Your task to perform on an android device: turn on notifications settings in the gmail app Image 0: 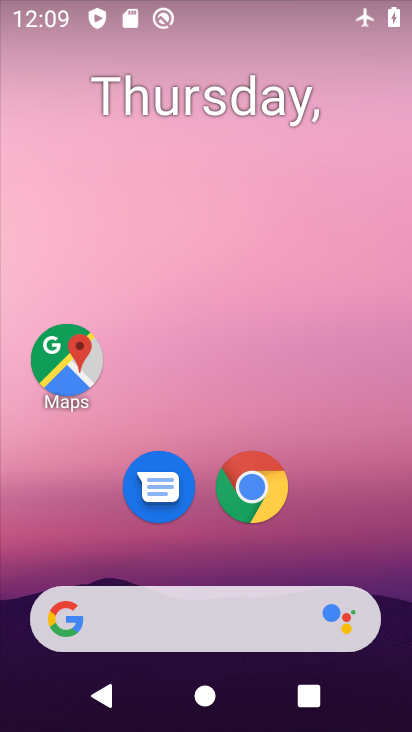
Step 0: drag from (318, 496) to (184, 179)
Your task to perform on an android device: turn on notifications settings in the gmail app Image 1: 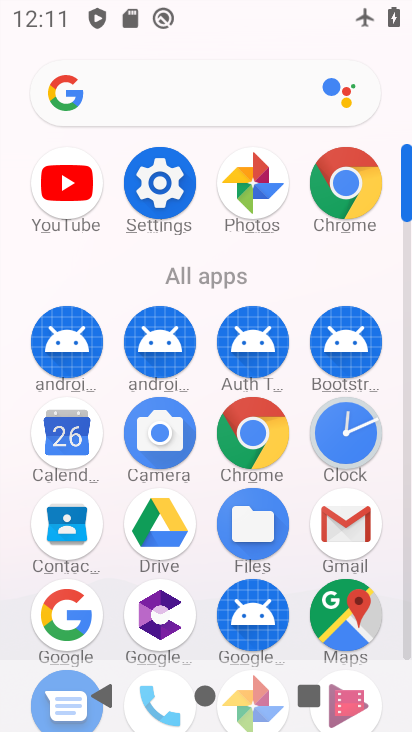
Step 1: click (361, 506)
Your task to perform on an android device: turn on notifications settings in the gmail app Image 2: 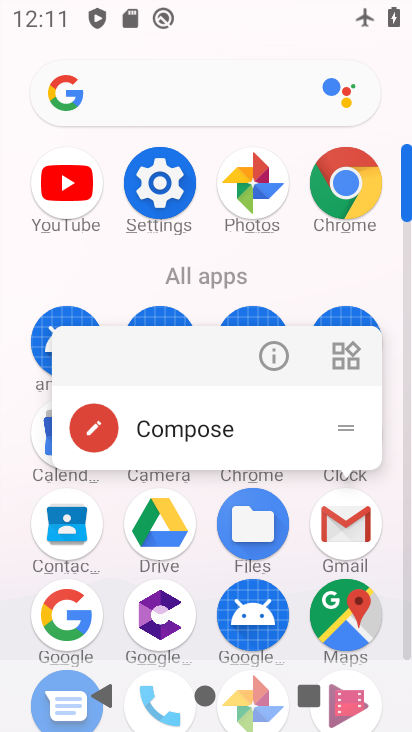
Step 2: click (292, 368)
Your task to perform on an android device: turn on notifications settings in the gmail app Image 3: 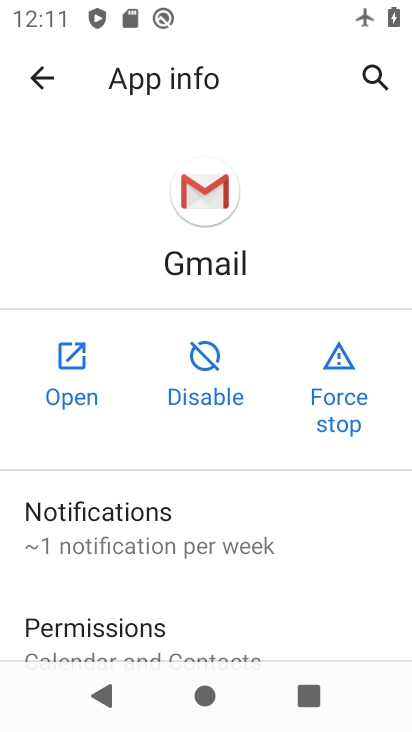
Step 3: drag from (266, 609) to (249, 498)
Your task to perform on an android device: turn on notifications settings in the gmail app Image 4: 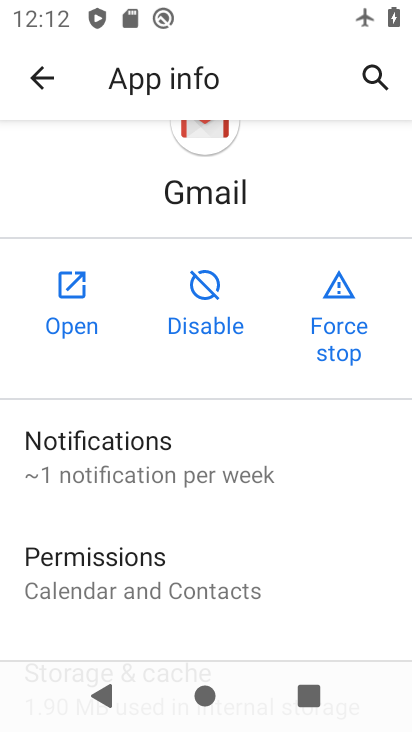
Step 4: click (125, 442)
Your task to perform on an android device: turn on notifications settings in the gmail app Image 5: 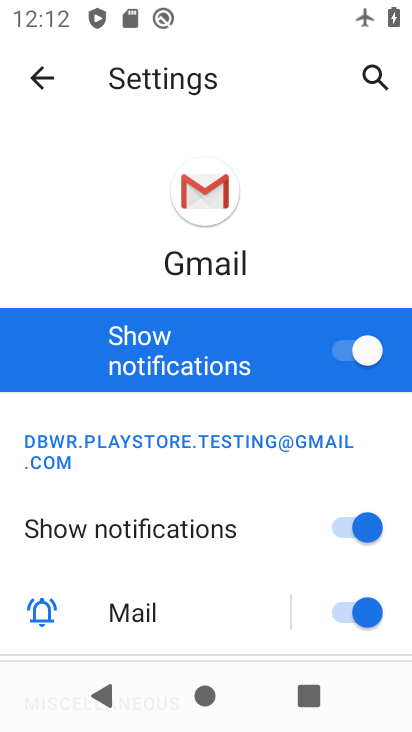
Step 5: task complete